Your task to perform on an android device: turn off data saver in the chrome app Image 0: 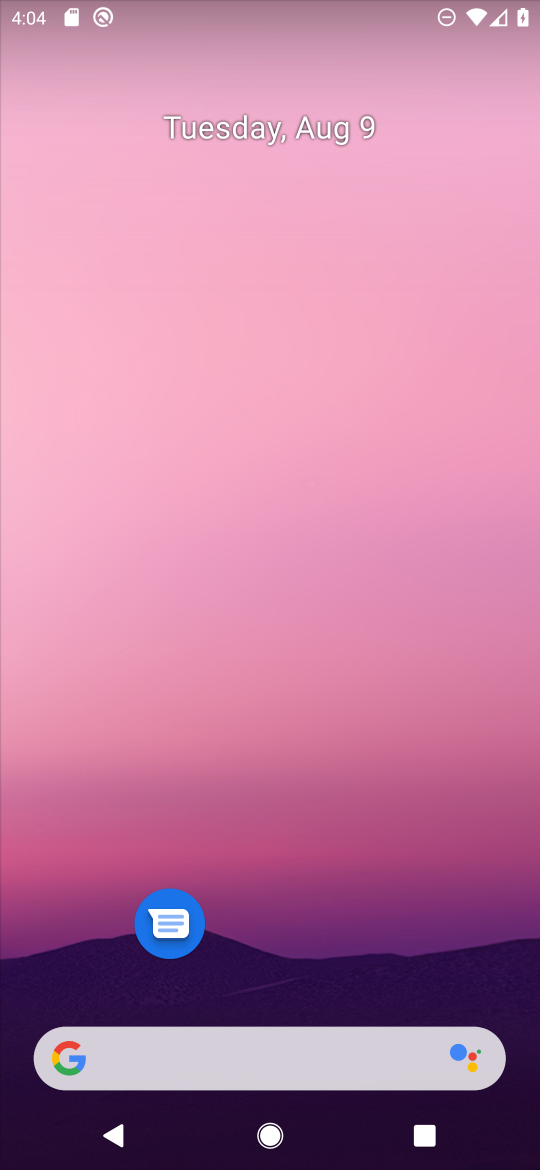
Step 0: drag from (290, 996) to (470, 3)
Your task to perform on an android device: turn off data saver in the chrome app Image 1: 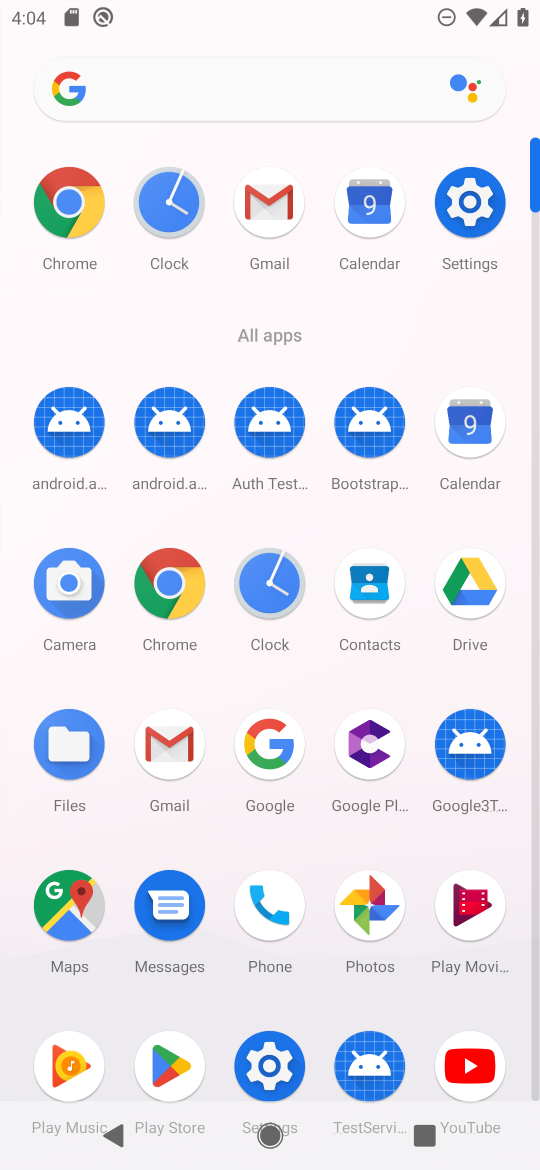
Step 1: click (157, 572)
Your task to perform on an android device: turn off data saver in the chrome app Image 2: 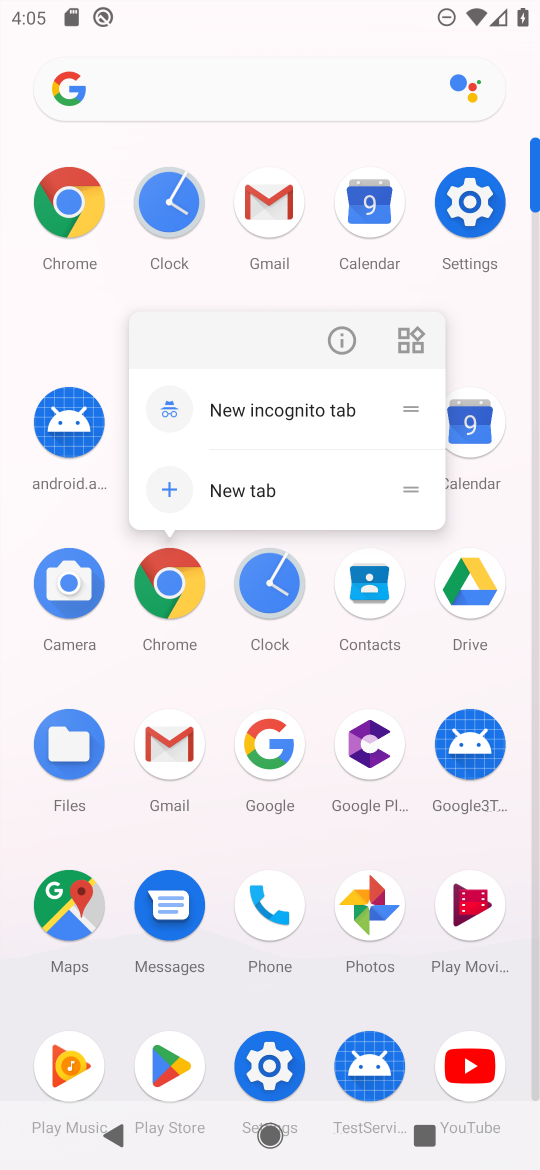
Step 2: click (174, 579)
Your task to perform on an android device: turn off data saver in the chrome app Image 3: 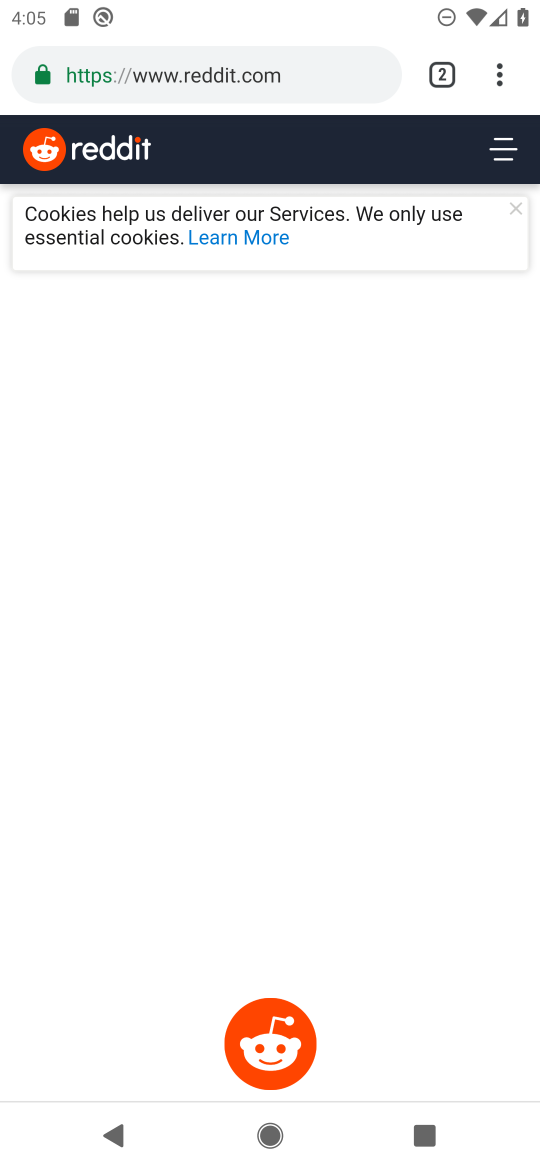
Step 3: drag from (505, 66) to (228, 976)
Your task to perform on an android device: turn off data saver in the chrome app Image 4: 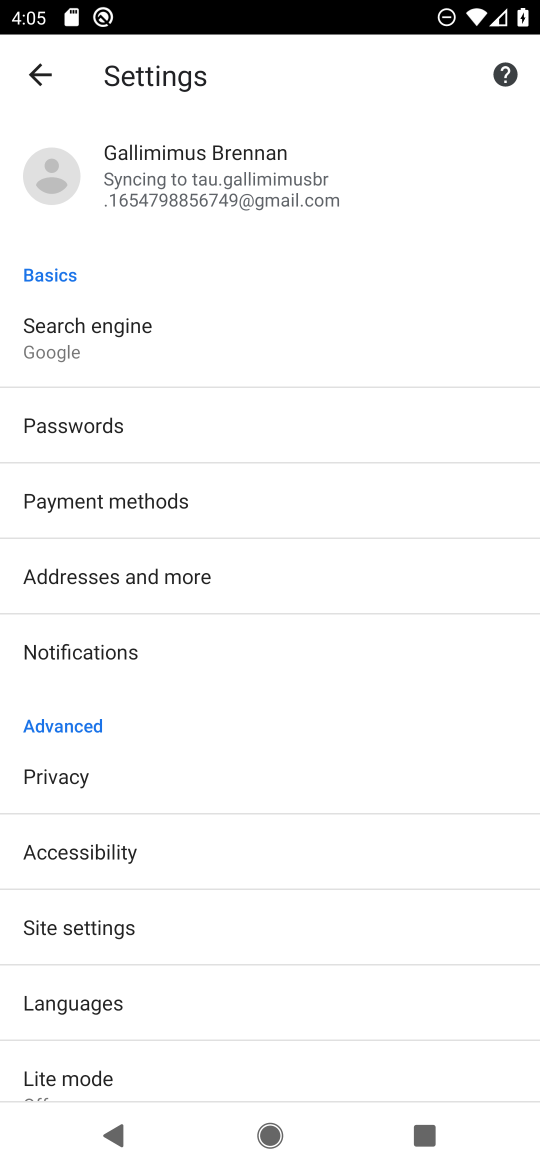
Step 4: drag from (190, 1030) to (328, 389)
Your task to perform on an android device: turn off data saver in the chrome app Image 5: 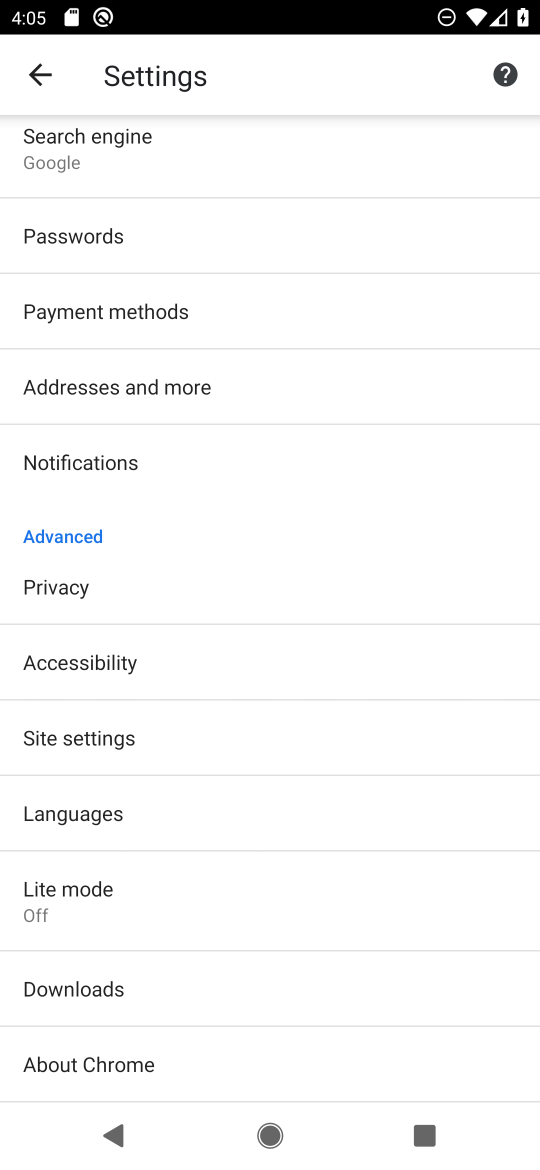
Step 5: click (95, 904)
Your task to perform on an android device: turn off data saver in the chrome app Image 6: 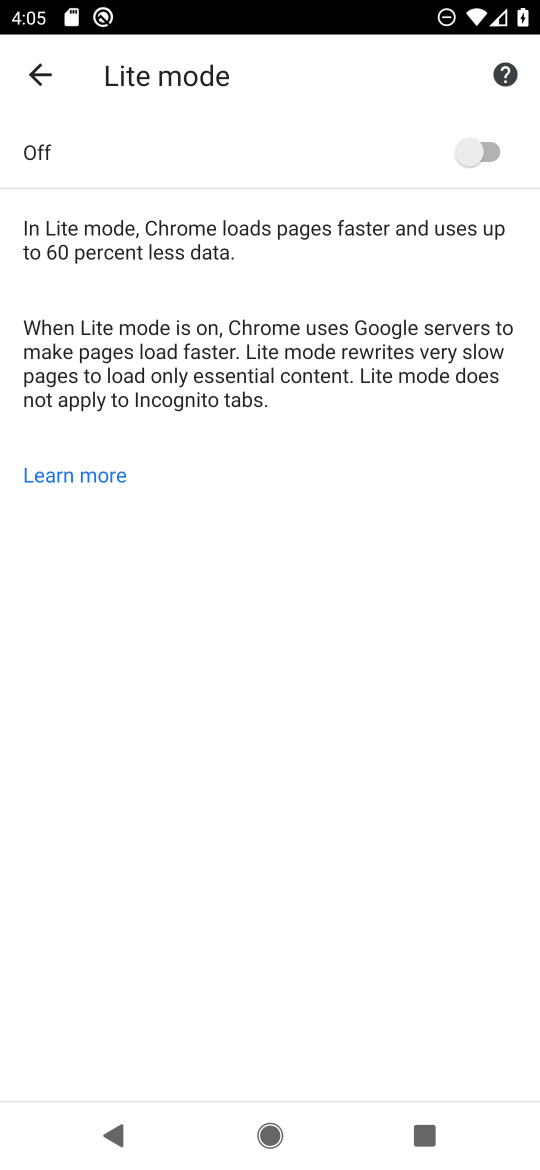
Step 6: task complete